Your task to perform on an android device: open a bookmark in the chrome app Image 0: 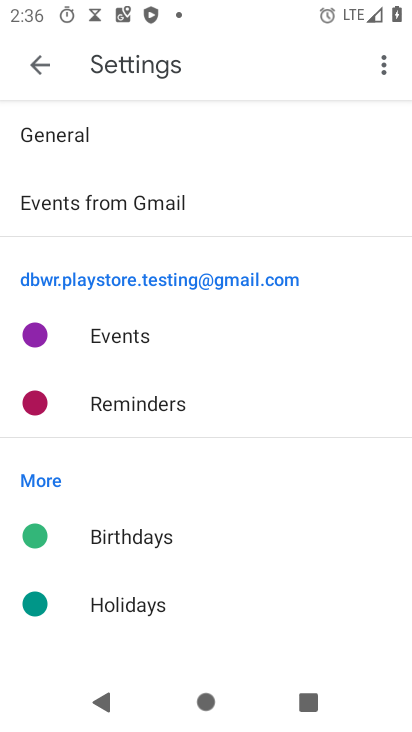
Step 0: press back button
Your task to perform on an android device: open a bookmark in the chrome app Image 1: 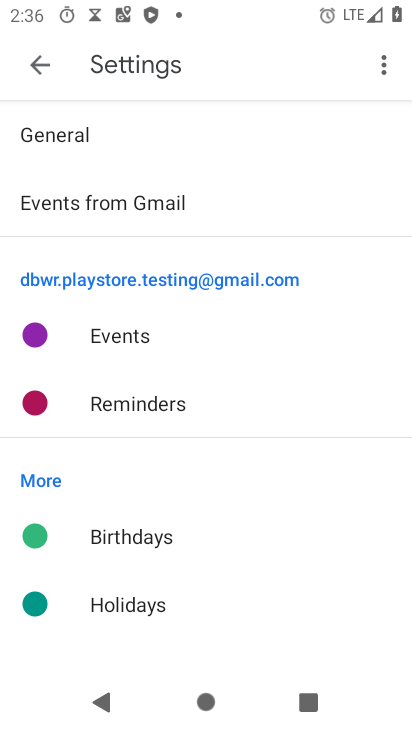
Step 1: press back button
Your task to perform on an android device: open a bookmark in the chrome app Image 2: 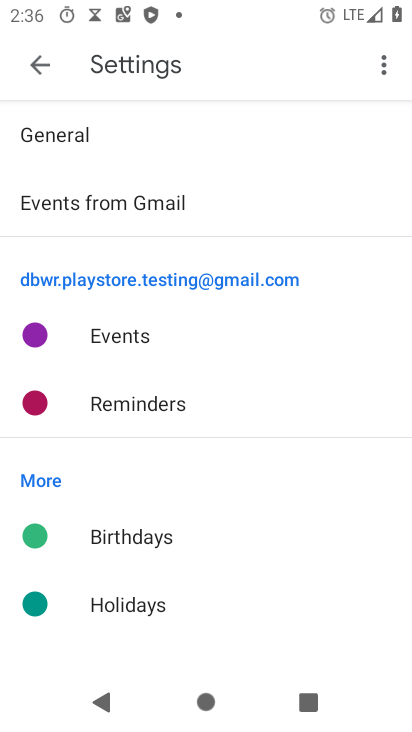
Step 2: press back button
Your task to perform on an android device: open a bookmark in the chrome app Image 3: 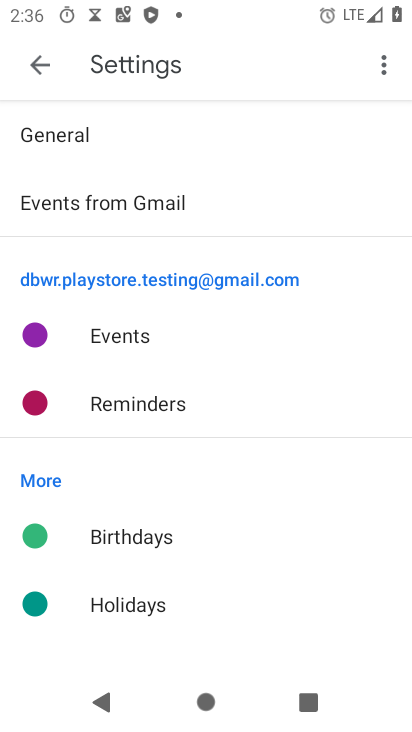
Step 3: press back button
Your task to perform on an android device: open a bookmark in the chrome app Image 4: 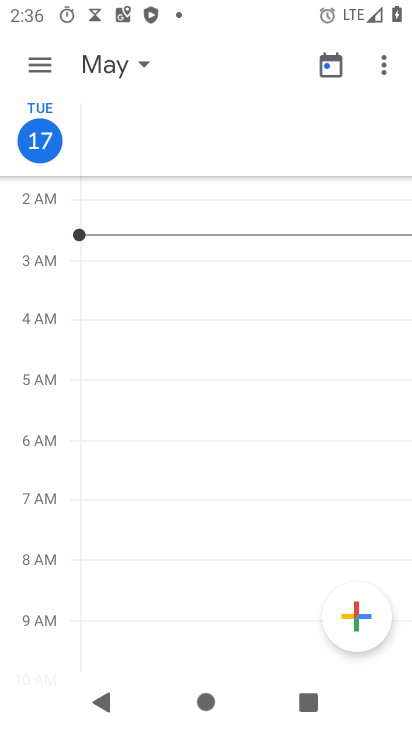
Step 4: press back button
Your task to perform on an android device: open a bookmark in the chrome app Image 5: 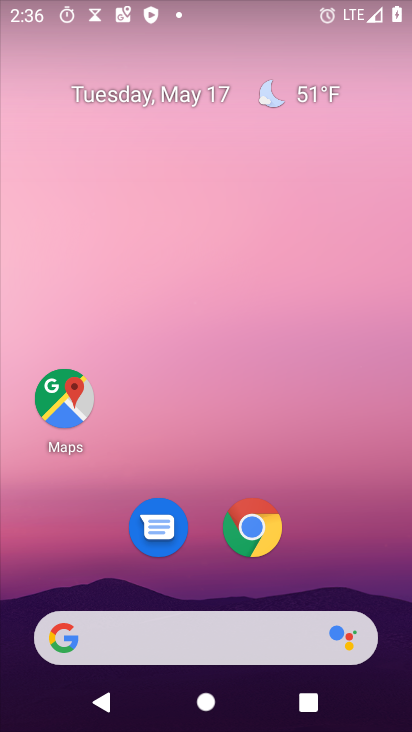
Step 5: click (254, 527)
Your task to perform on an android device: open a bookmark in the chrome app Image 6: 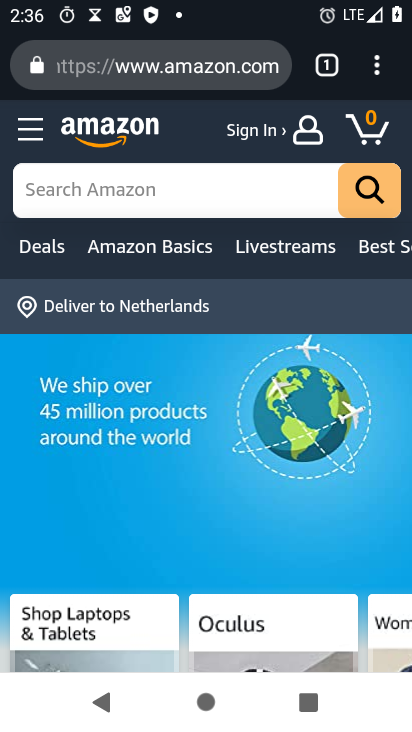
Step 6: click (378, 64)
Your task to perform on an android device: open a bookmark in the chrome app Image 7: 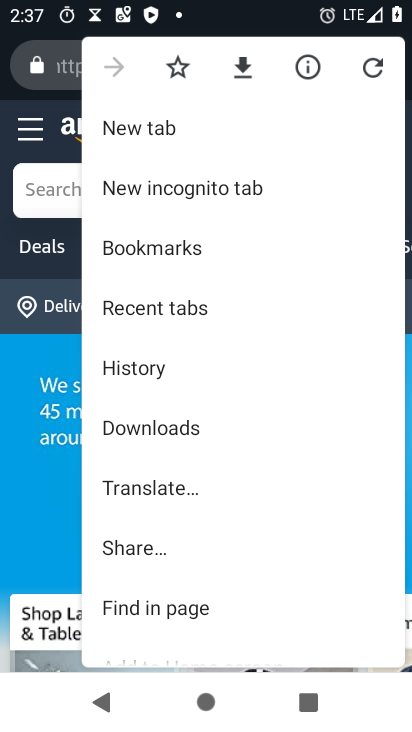
Step 7: click (195, 247)
Your task to perform on an android device: open a bookmark in the chrome app Image 8: 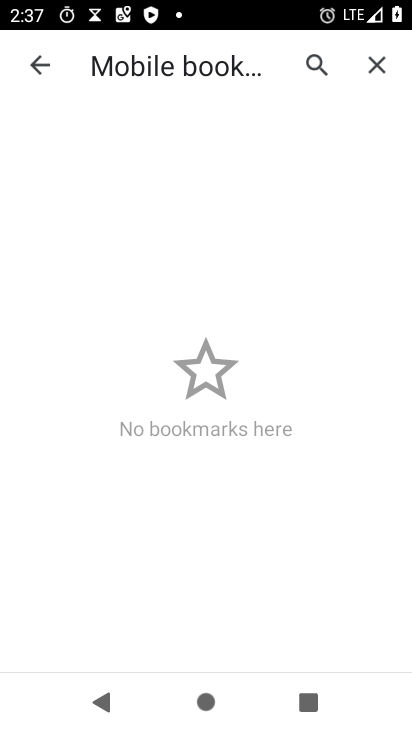
Step 8: task complete